Your task to perform on an android device: When is my next appointment? Image 0: 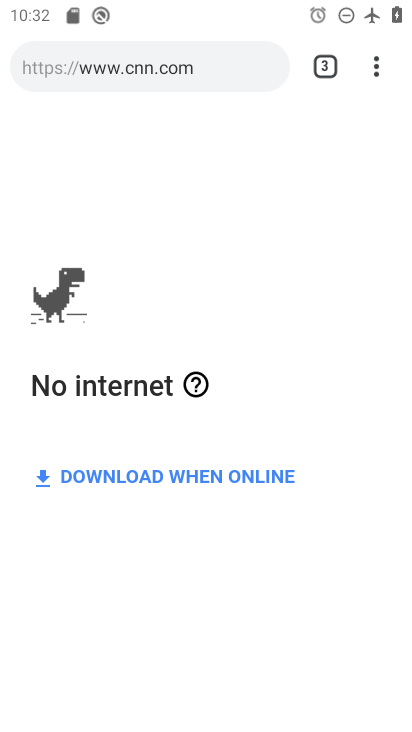
Step 0: press home button
Your task to perform on an android device: When is my next appointment? Image 1: 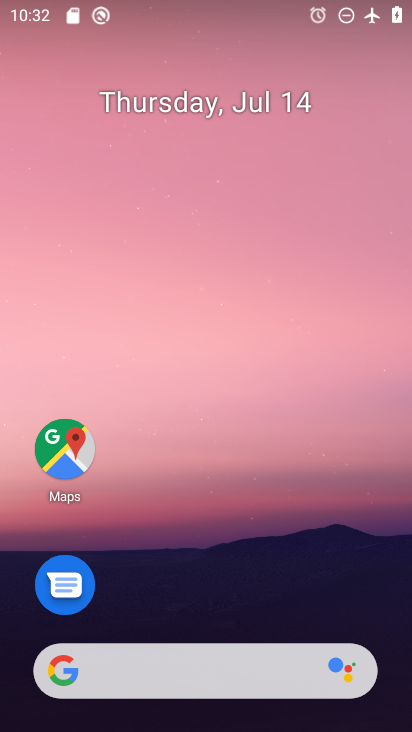
Step 1: drag from (216, 637) to (129, 103)
Your task to perform on an android device: When is my next appointment? Image 2: 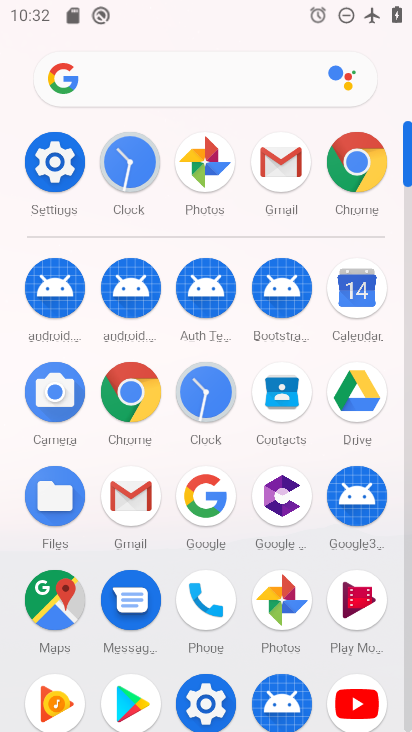
Step 2: click (400, 290)
Your task to perform on an android device: When is my next appointment? Image 3: 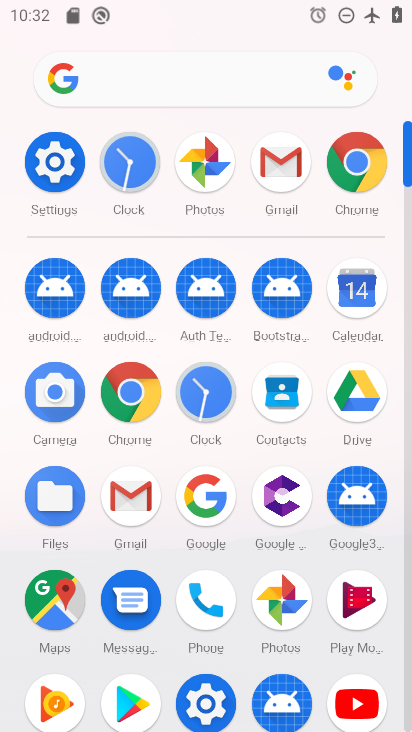
Step 3: task complete